Your task to perform on an android device: Add "macbook pro" to the cart on walmart Image 0: 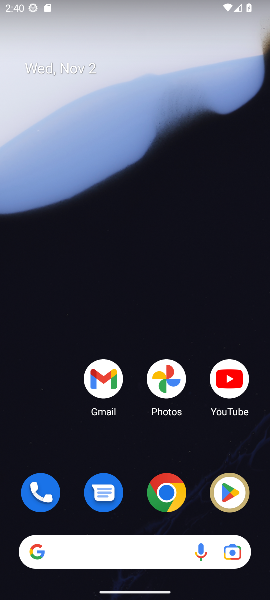
Step 0: click (164, 493)
Your task to perform on an android device: Add "macbook pro" to the cart on walmart Image 1: 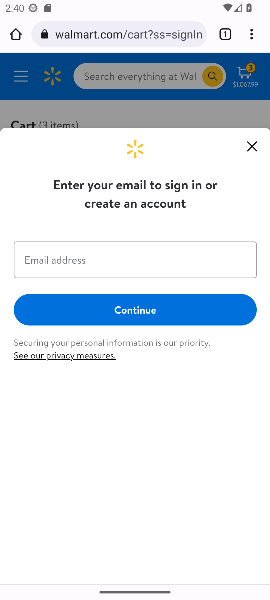
Step 1: click (253, 141)
Your task to perform on an android device: Add "macbook pro" to the cart on walmart Image 2: 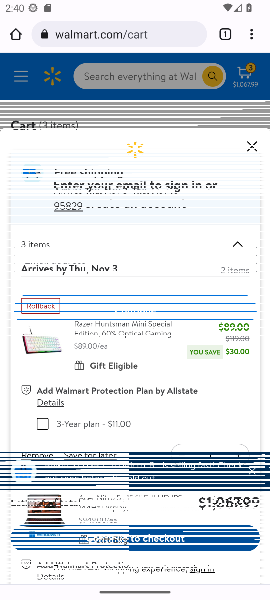
Step 2: click (122, 68)
Your task to perform on an android device: Add "macbook pro" to the cart on walmart Image 3: 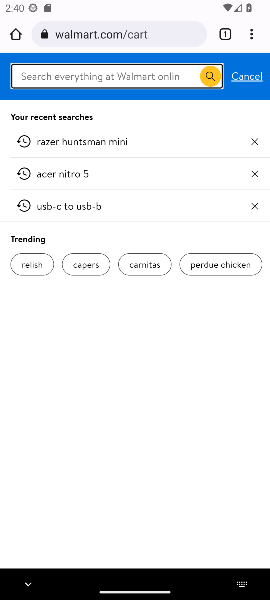
Step 3: type "macbook pro"
Your task to perform on an android device: Add "macbook pro" to the cart on walmart Image 4: 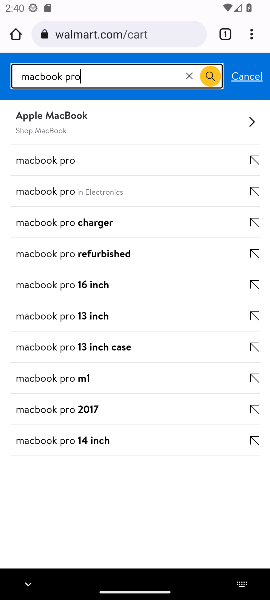
Step 4: click (43, 159)
Your task to perform on an android device: Add "macbook pro" to the cart on walmart Image 5: 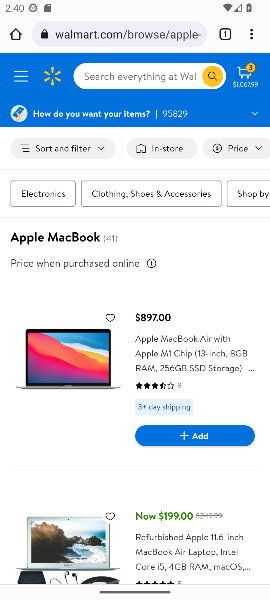
Step 5: drag from (128, 324) to (131, 270)
Your task to perform on an android device: Add "macbook pro" to the cart on walmart Image 6: 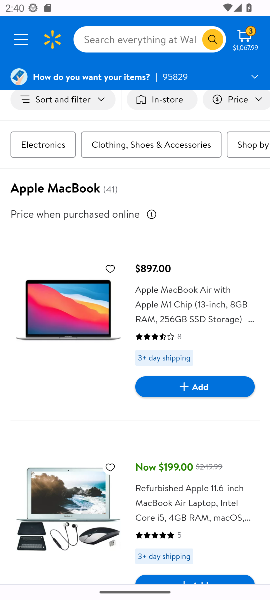
Step 6: drag from (128, 416) to (148, 214)
Your task to perform on an android device: Add "macbook pro" to the cart on walmart Image 7: 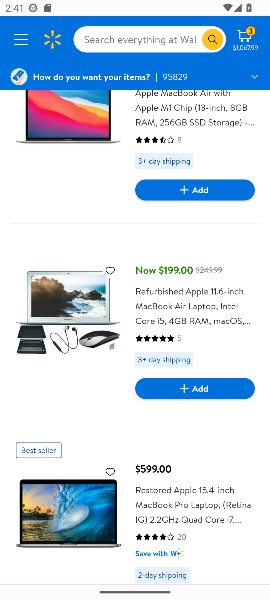
Step 7: drag from (120, 414) to (126, 207)
Your task to perform on an android device: Add "macbook pro" to the cart on walmart Image 8: 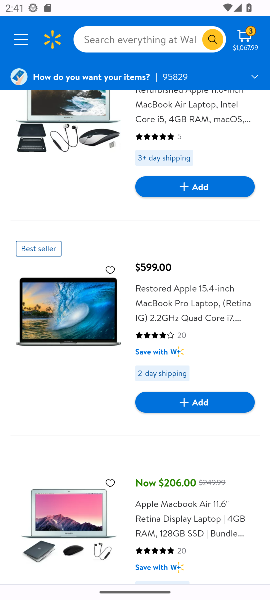
Step 8: click (179, 401)
Your task to perform on an android device: Add "macbook pro" to the cart on walmart Image 9: 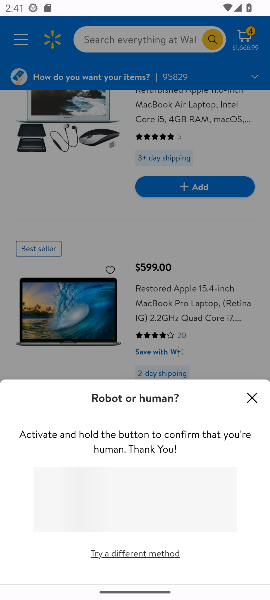
Step 9: click (254, 395)
Your task to perform on an android device: Add "macbook pro" to the cart on walmart Image 10: 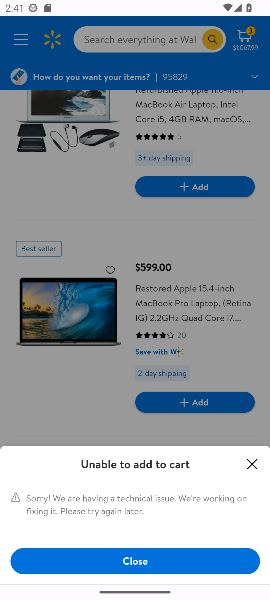
Step 10: click (132, 561)
Your task to perform on an android device: Add "macbook pro" to the cart on walmart Image 11: 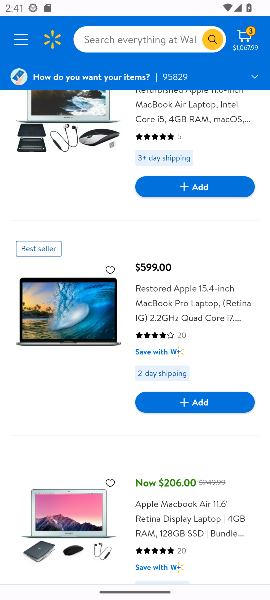
Step 11: click (184, 400)
Your task to perform on an android device: Add "macbook pro" to the cart on walmart Image 12: 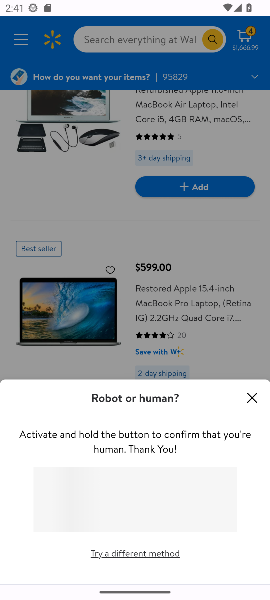
Step 12: click (98, 496)
Your task to perform on an android device: Add "macbook pro" to the cart on walmart Image 13: 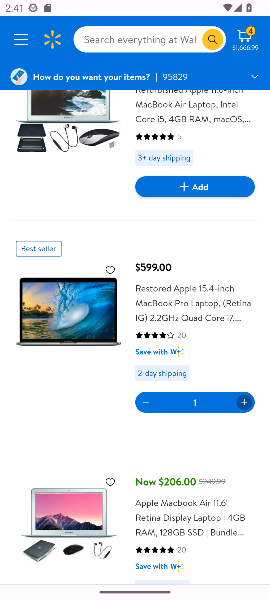
Step 13: task complete